Your task to perform on an android device: read, delete, or share a saved page in the chrome app Image 0: 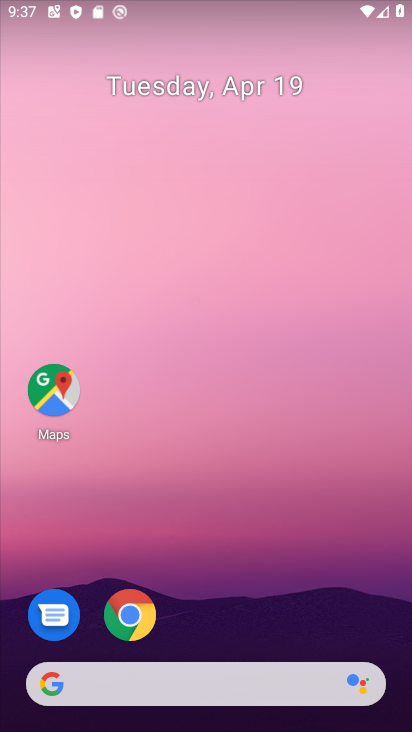
Step 0: drag from (197, 623) to (214, 192)
Your task to perform on an android device: read, delete, or share a saved page in the chrome app Image 1: 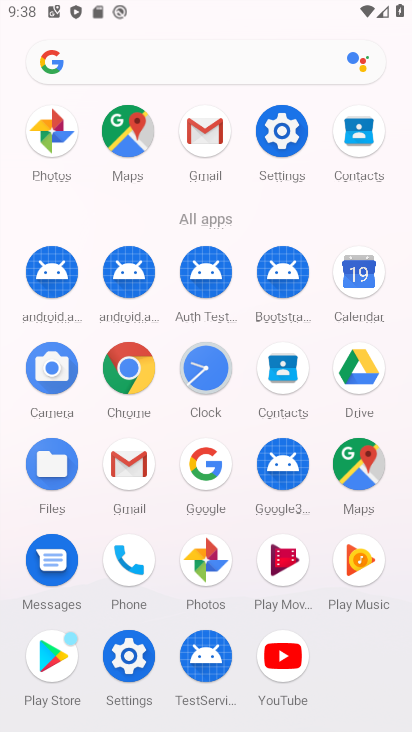
Step 1: click (125, 364)
Your task to perform on an android device: read, delete, or share a saved page in the chrome app Image 2: 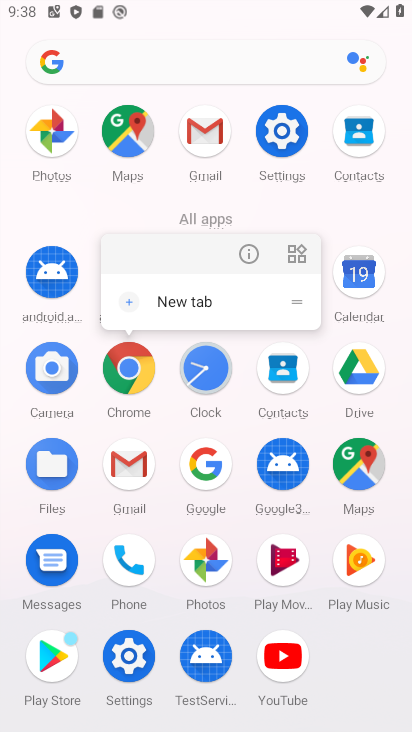
Step 2: click (237, 258)
Your task to perform on an android device: read, delete, or share a saved page in the chrome app Image 3: 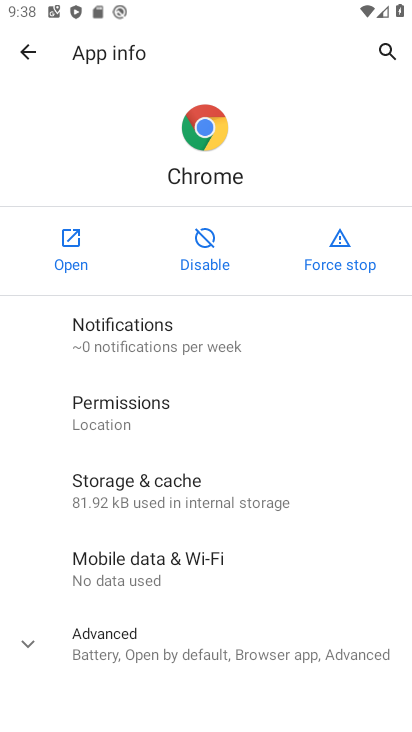
Step 3: click (58, 229)
Your task to perform on an android device: read, delete, or share a saved page in the chrome app Image 4: 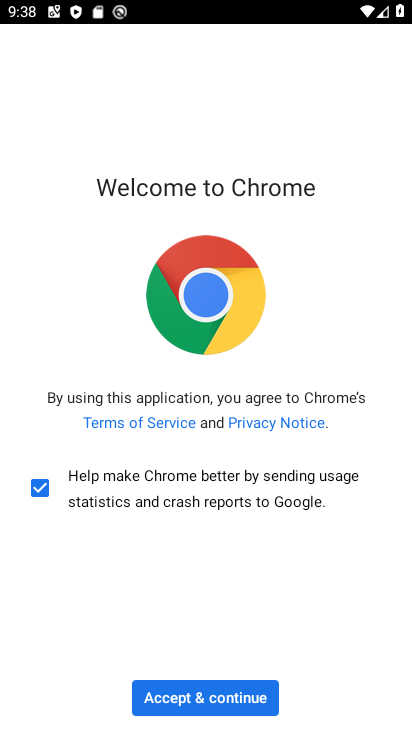
Step 4: click (182, 687)
Your task to perform on an android device: read, delete, or share a saved page in the chrome app Image 5: 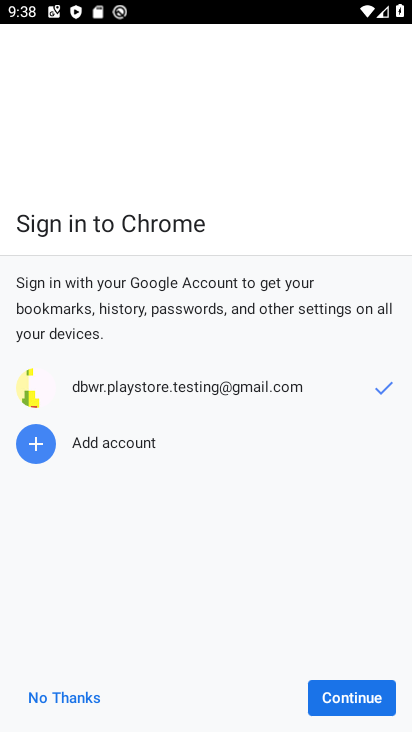
Step 5: click (64, 704)
Your task to perform on an android device: read, delete, or share a saved page in the chrome app Image 6: 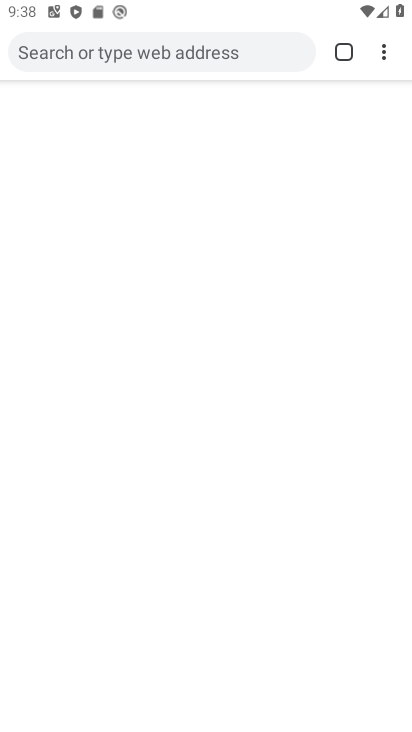
Step 6: drag from (225, 581) to (225, 254)
Your task to perform on an android device: read, delete, or share a saved page in the chrome app Image 7: 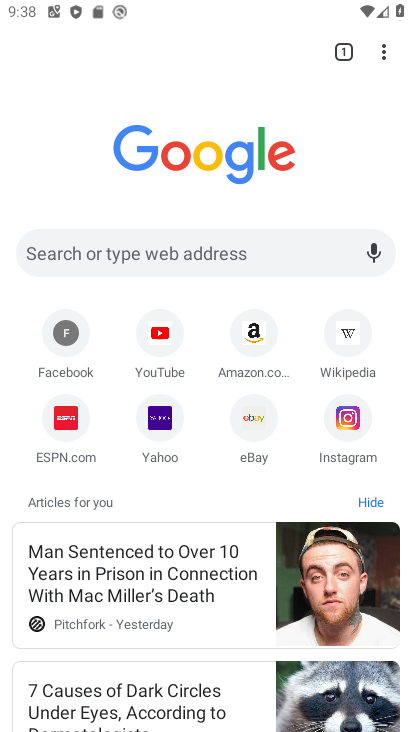
Step 7: click (399, 46)
Your task to perform on an android device: read, delete, or share a saved page in the chrome app Image 8: 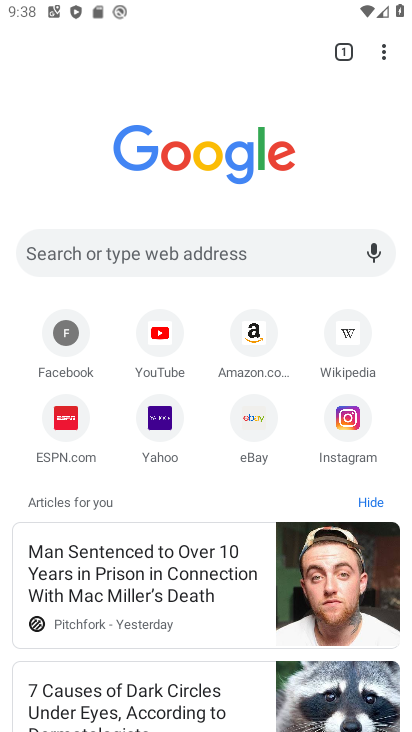
Step 8: click (387, 46)
Your task to perform on an android device: read, delete, or share a saved page in the chrome app Image 9: 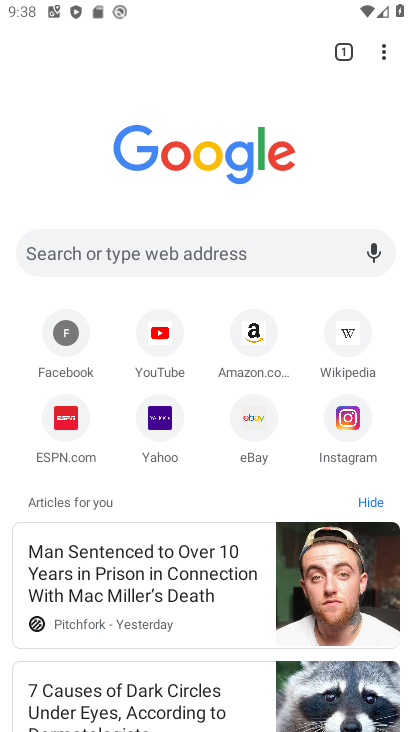
Step 9: click (383, 50)
Your task to perform on an android device: read, delete, or share a saved page in the chrome app Image 10: 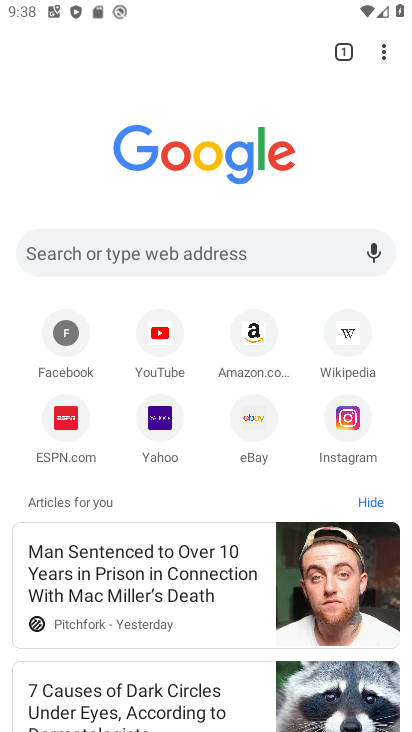
Step 10: task complete